Your task to perform on an android device: What is the recent news? Image 0: 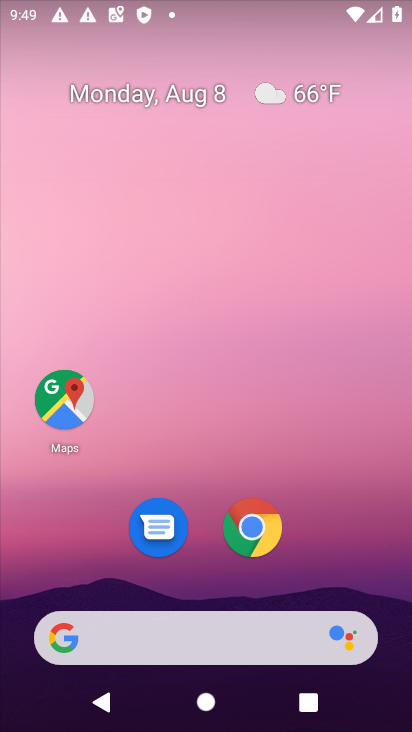
Step 0: drag from (7, 237) to (406, 210)
Your task to perform on an android device: What is the recent news? Image 1: 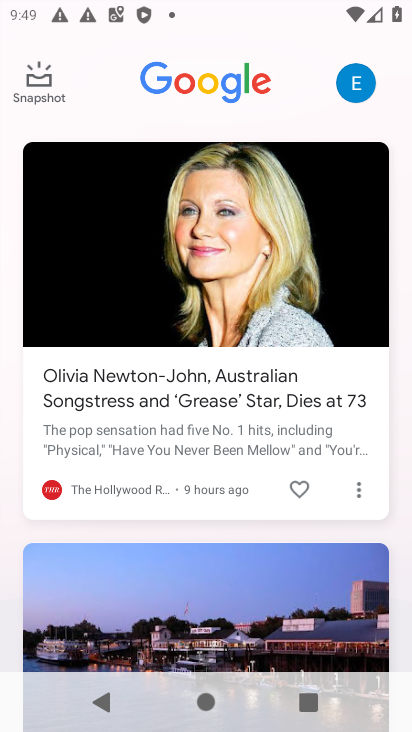
Step 1: task complete